Your task to perform on an android device: Open calendar and show me the second week of next month Image 0: 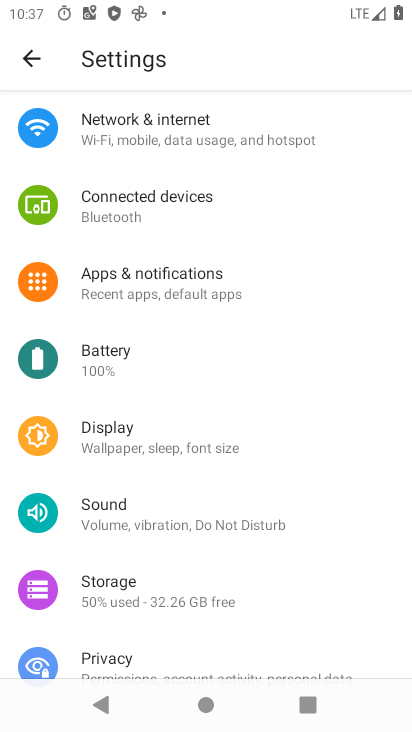
Step 0: press home button
Your task to perform on an android device: Open calendar and show me the second week of next month Image 1: 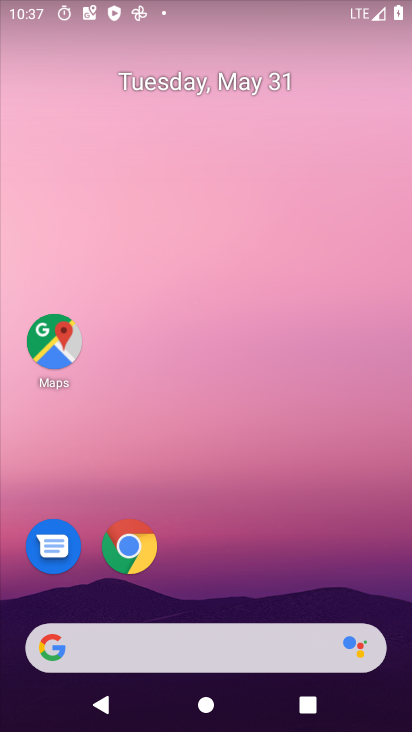
Step 1: drag from (276, 481) to (334, 122)
Your task to perform on an android device: Open calendar and show me the second week of next month Image 2: 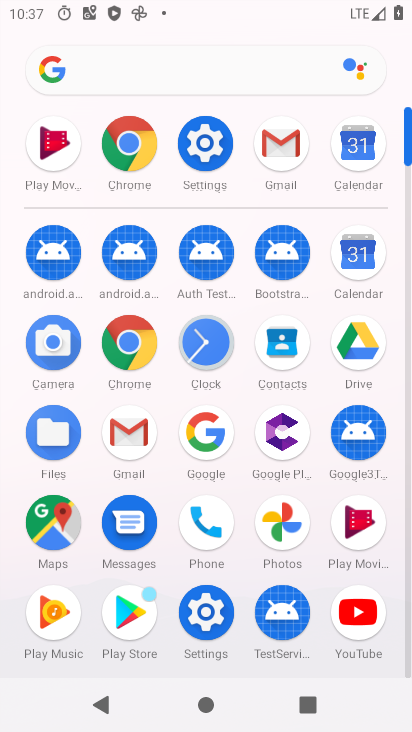
Step 2: click (360, 139)
Your task to perform on an android device: Open calendar and show me the second week of next month Image 3: 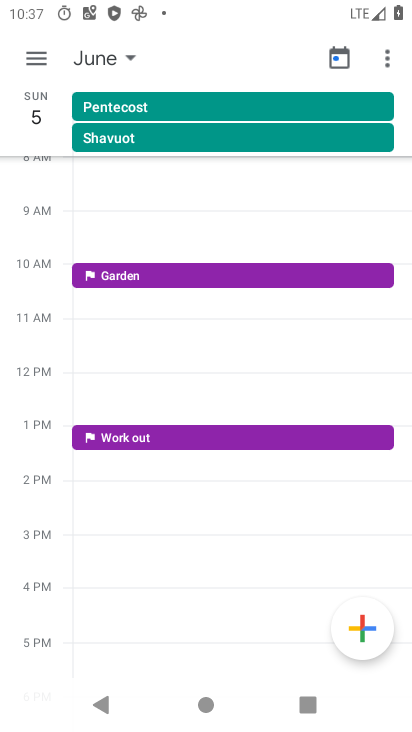
Step 3: click (56, 56)
Your task to perform on an android device: Open calendar and show me the second week of next month Image 4: 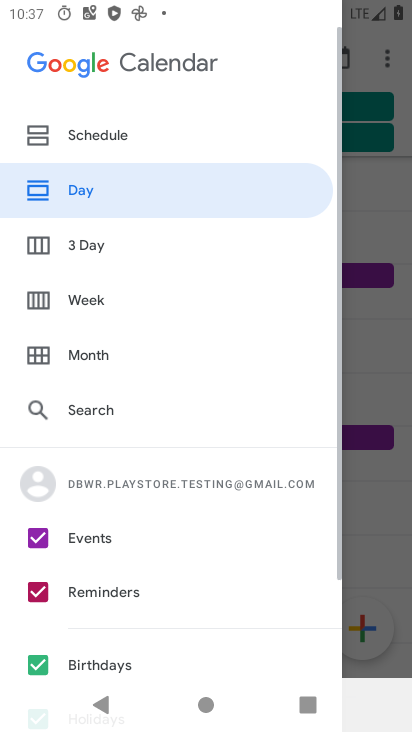
Step 4: click (87, 299)
Your task to perform on an android device: Open calendar and show me the second week of next month Image 5: 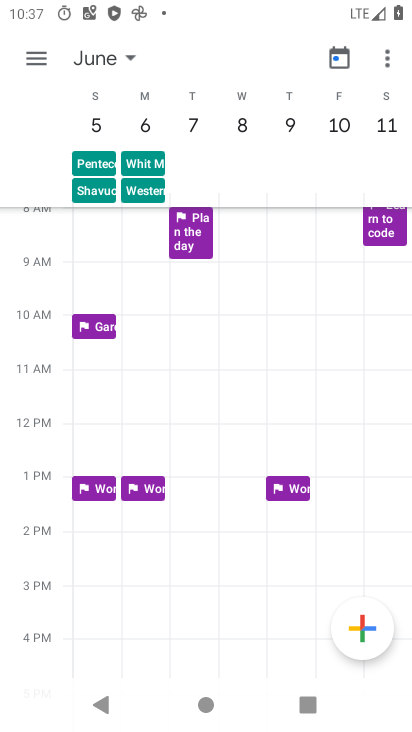
Step 5: task complete